Your task to perform on an android device: What is the recent news? Image 0: 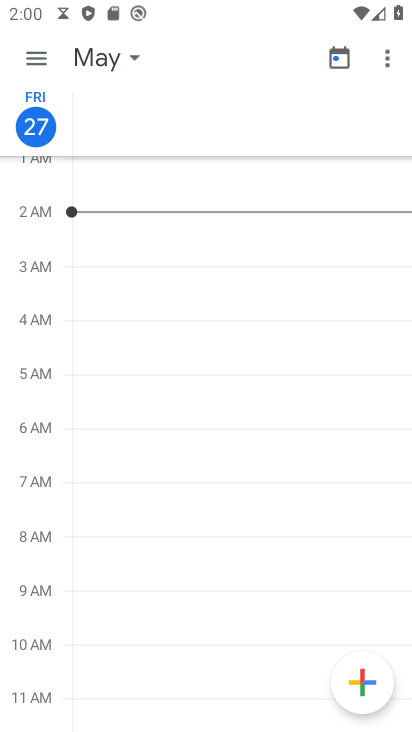
Step 0: press back button
Your task to perform on an android device: What is the recent news? Image 1: 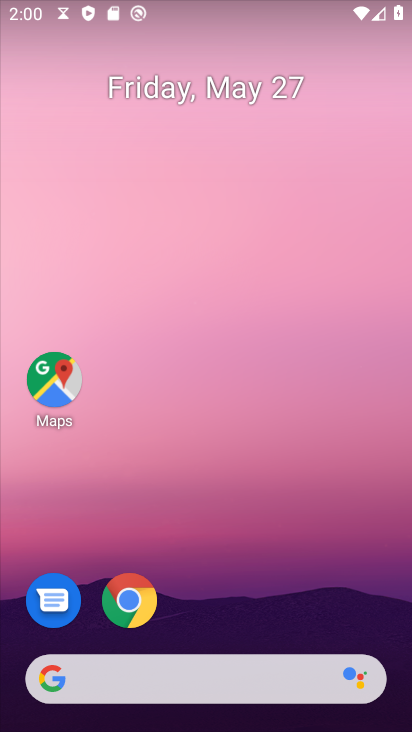
Step 1: drag from (260, 540) to (179, 28)
Your task to perform on an android device: What is the recent news? Image 2: 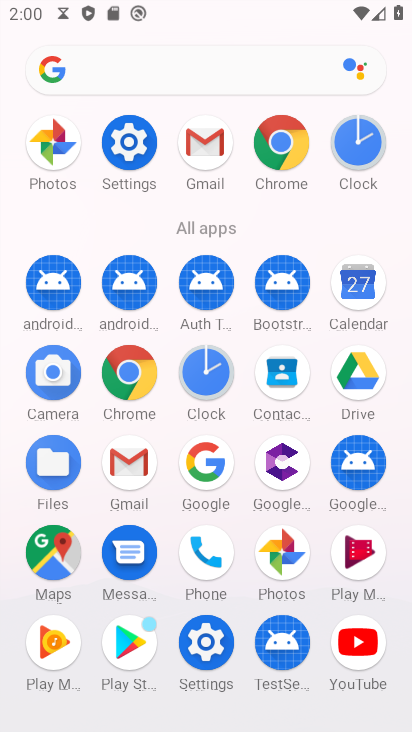
Step 2: drag from (2, 539) to (7, 199)
Your task to perform on an android device: What is the recent news? Image 3: 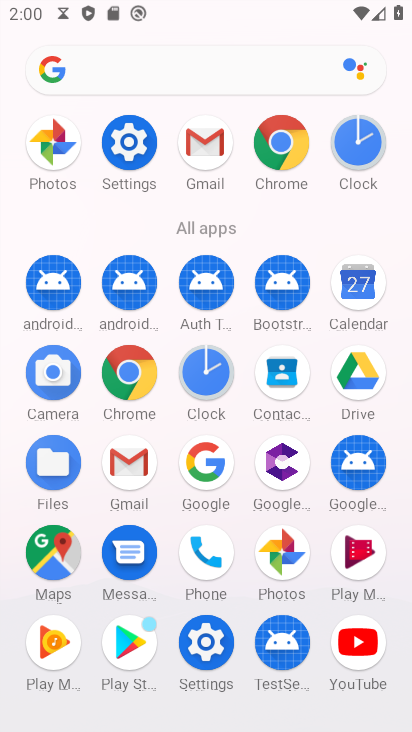
Step 3: click (126, 364)
Your task to perform on an android device: What is the recent news? Image 4: 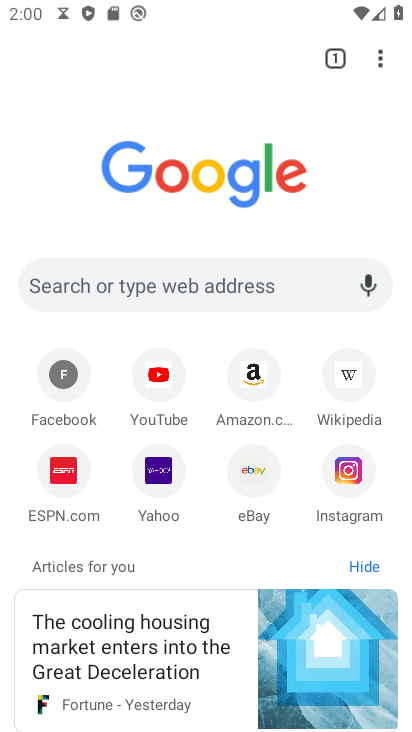
Step 4: click (149, 278)
Your task to perform on an android device: What is the recent news? Image 5: 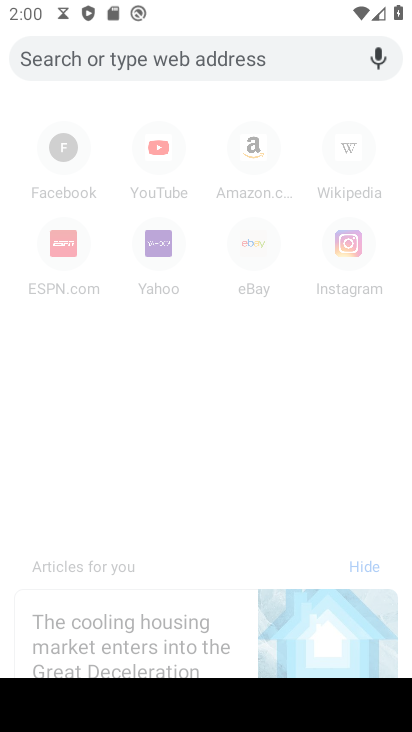
Step 5: type "What is the recent news?"
Your task to perform on an android device: What is the recent news? Image 6: 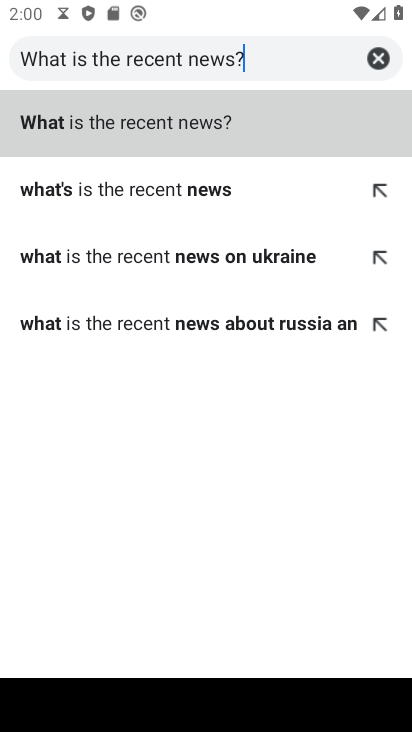
Step 6: click (190, 105)
Your task to perform on an android device: What is the recent news? Image 7: 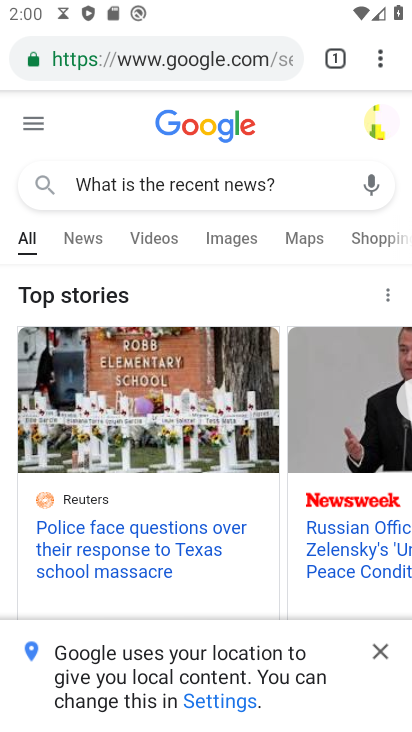
Step 7: task complete